Your task to perform on an android device: Go to Google Image 0: 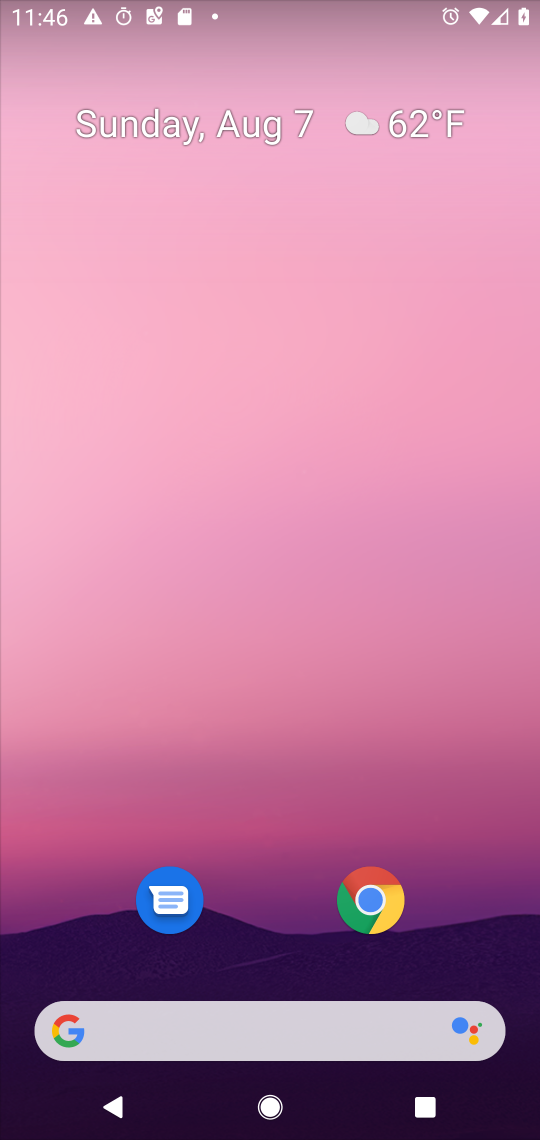
Step 0: press home button
Your task to perform on an android device: Go to Google Image 1: 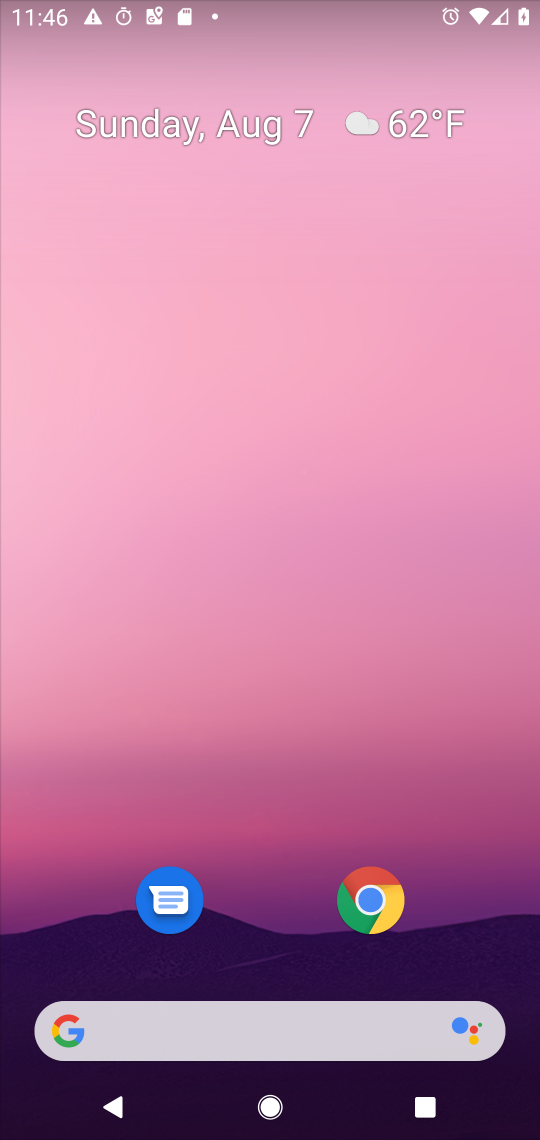
Step 1: drag from (274, 956) to (290, 46)
Your task to perform on an android device: Go to Google Image 2: 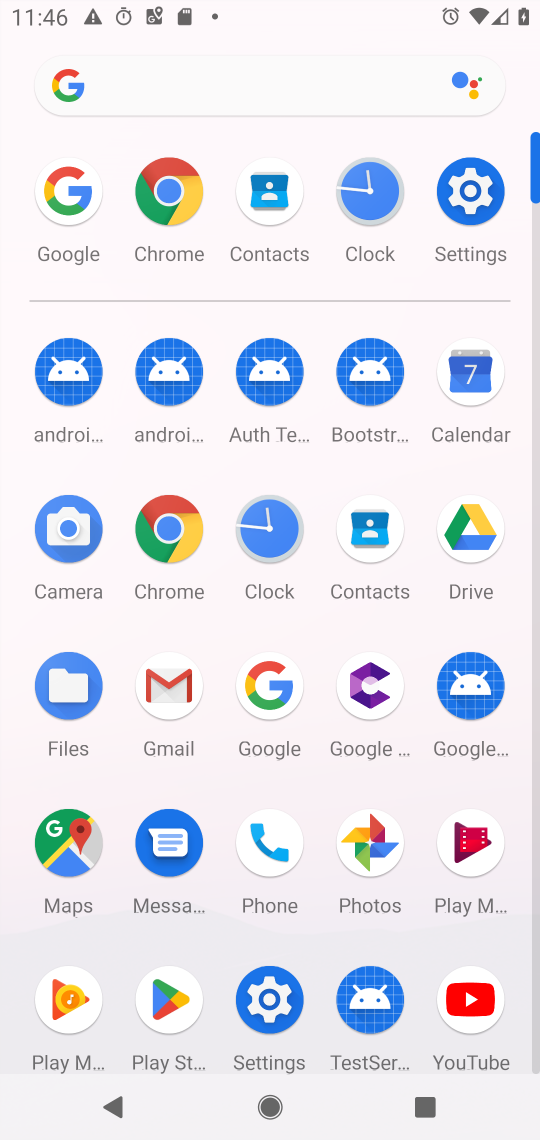
Step 2: click (267, 680)
Your task to perform on an android device: Go to Google Image 3: 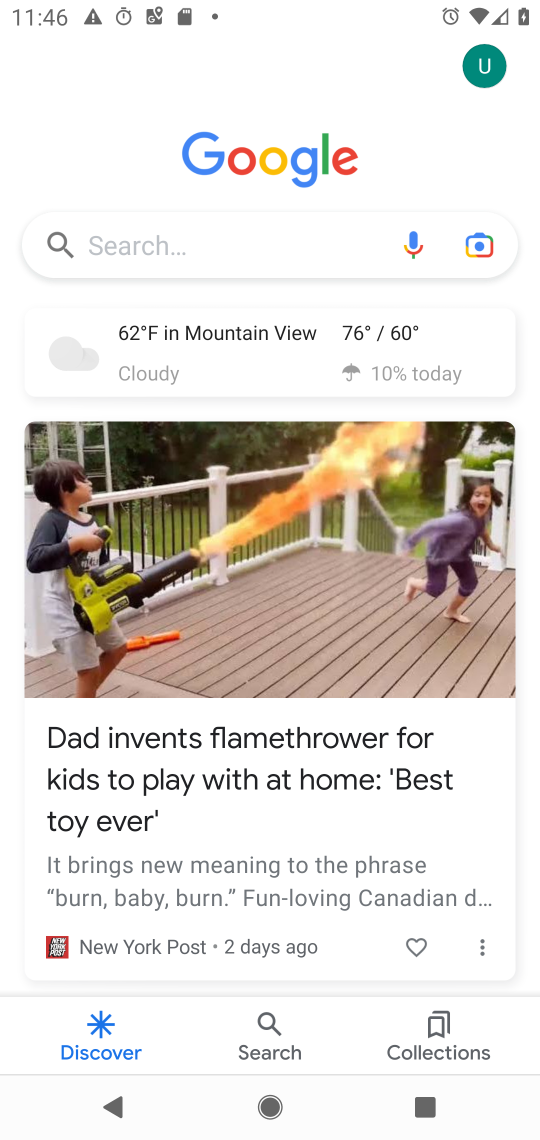
Step 3: click (469, 239)
Your task to perform on an android device: Go to Google Image 4: 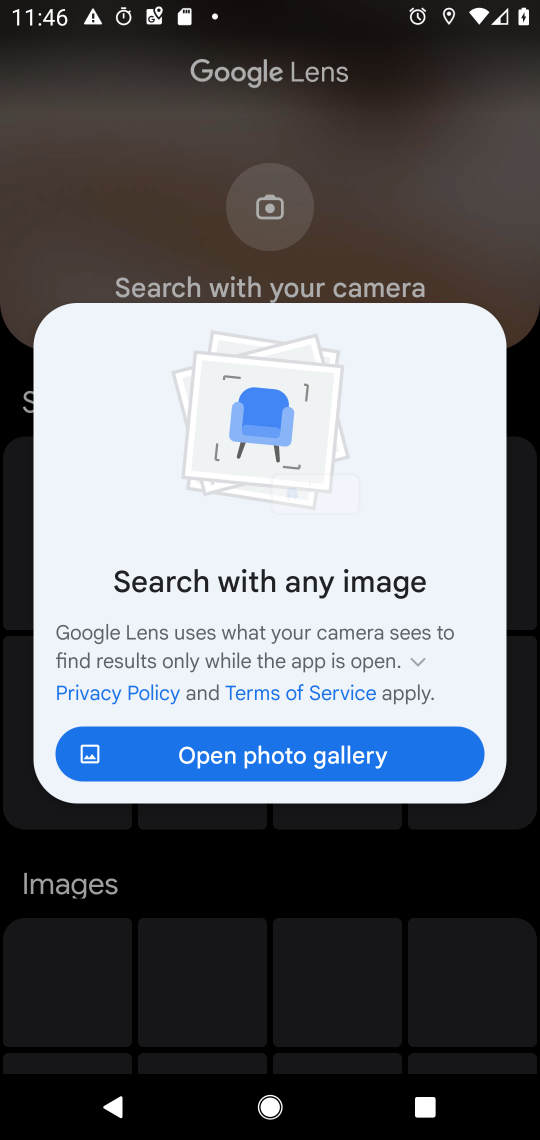
Step 4: click (271, 778)
Your task to perform on an android device: Go to Google Image 5: 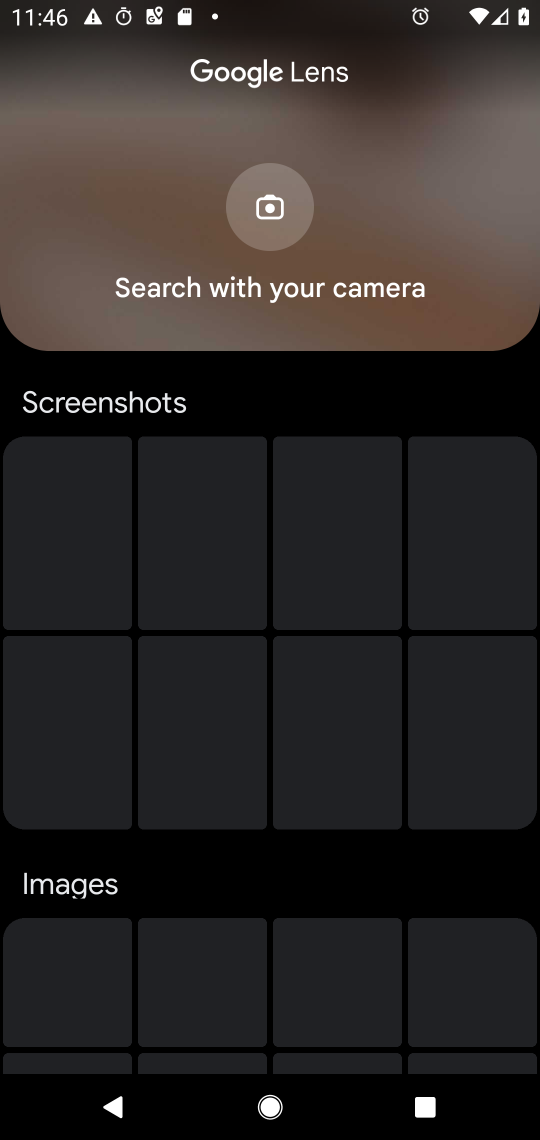
Step 5: click (271, 762)
Your task to perform on an android device: Go to Google Image 6: 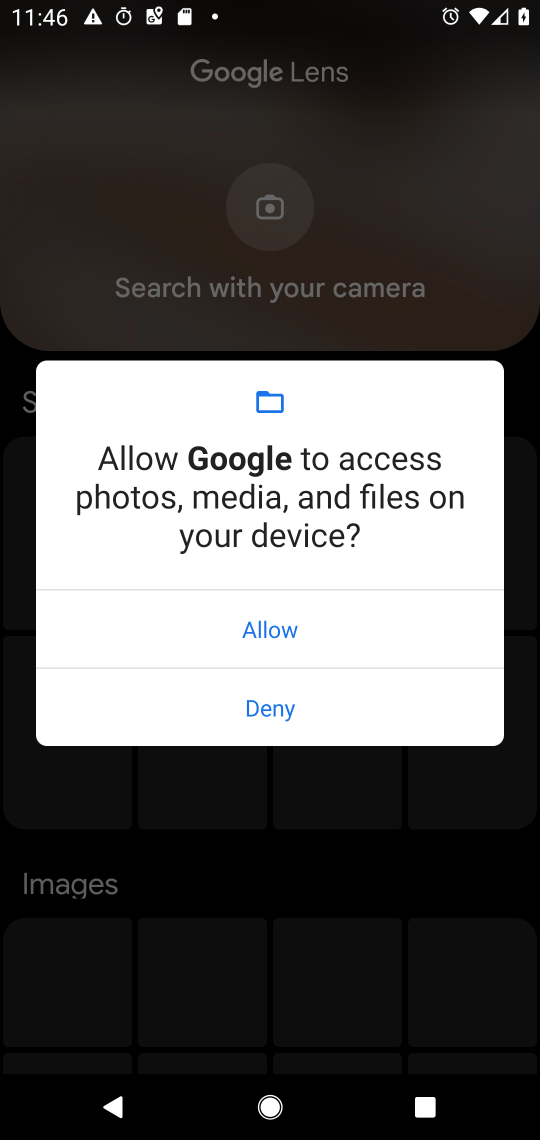
Step 6: click (274, 619)
Your task to perform on an android device: Go to Google Image 7: 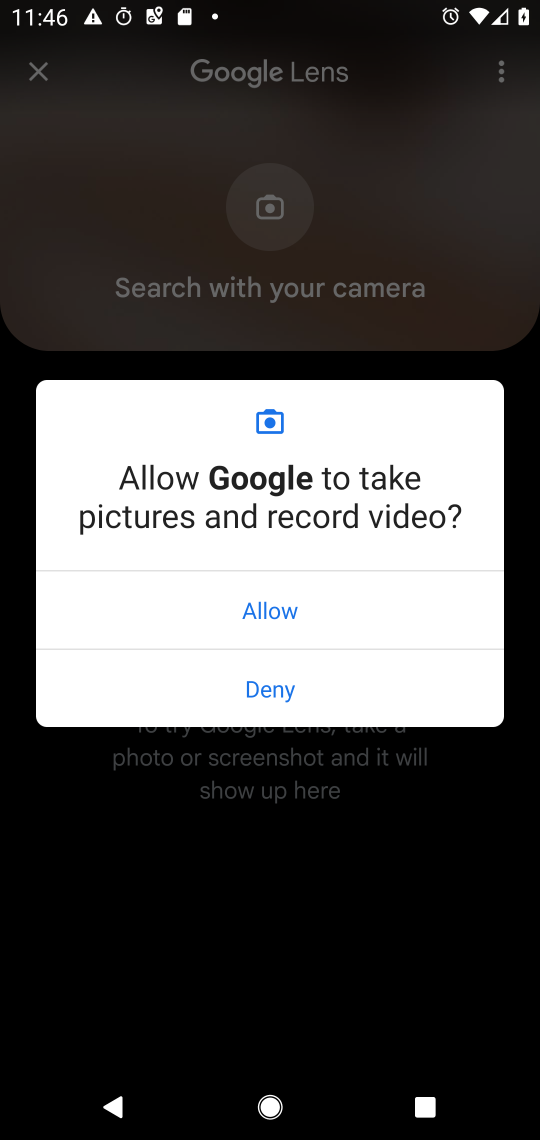
Step 7: click (288, 608)
Your task to perform on an android device: Go to Google Image 8: 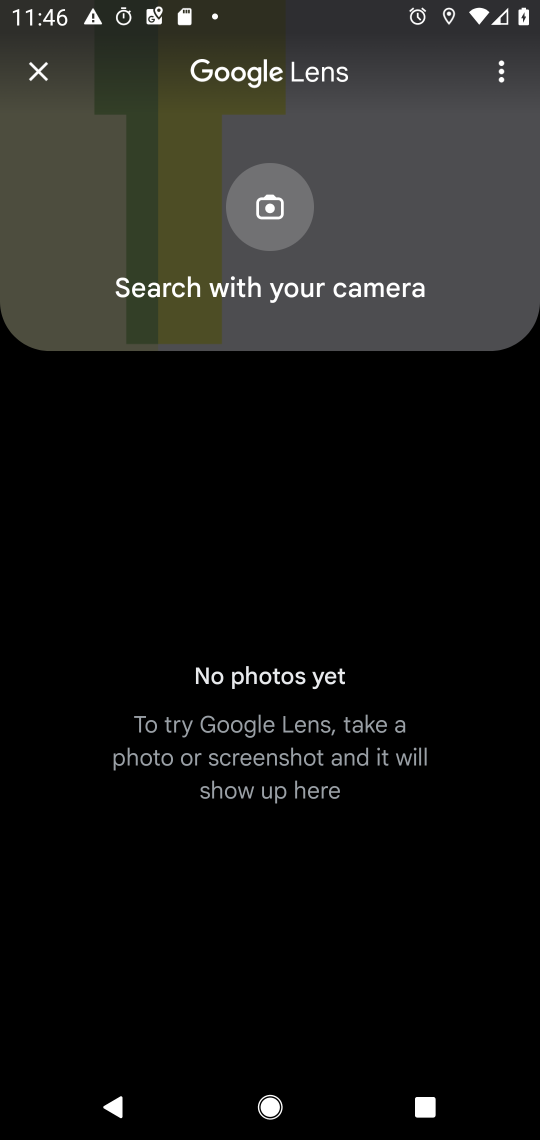
Step 8: task complete